Your task to perform on an android device: Search for panasonic triple a on bestbuy.com, select the first entry, add it to the cart, then select checkout. Image 0: 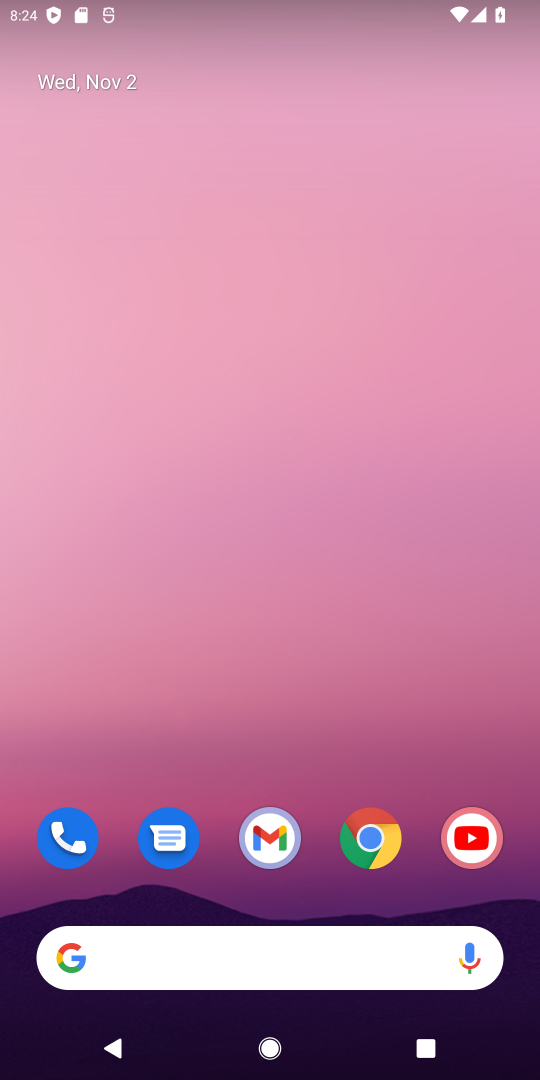
Step 0: click (384, 847)
Your task to perform on an android device: Search for panasonic triple a on bestbuy.com, select the first entry, add it to the cart, then select checkout. Image 1: 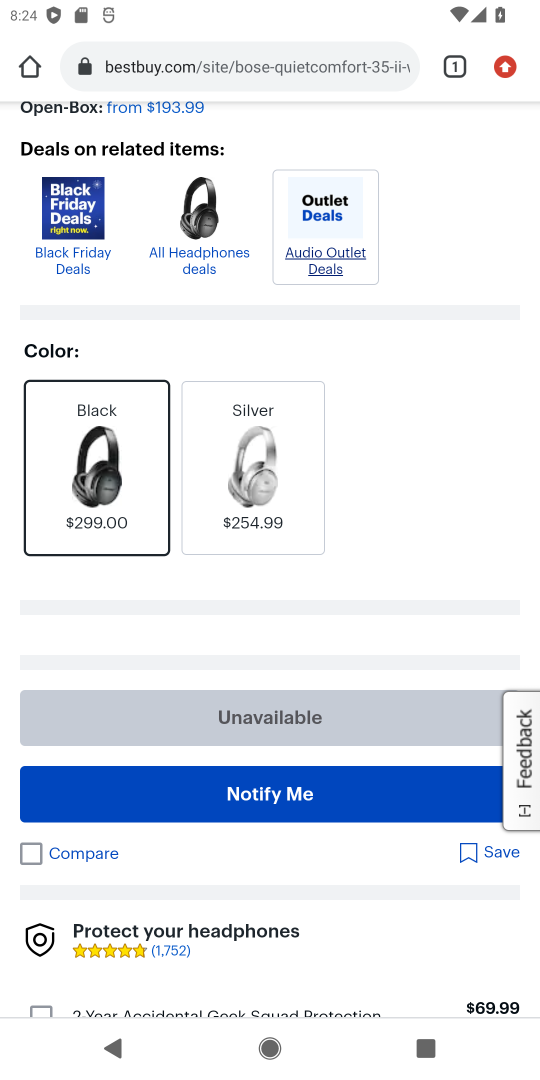
Step 1: click (261, 62)
Your task to perform on an android device: Search for panasonic triple a on bestbuy.com, select the first entry, add it to the cart, then select checkout. Image 2: 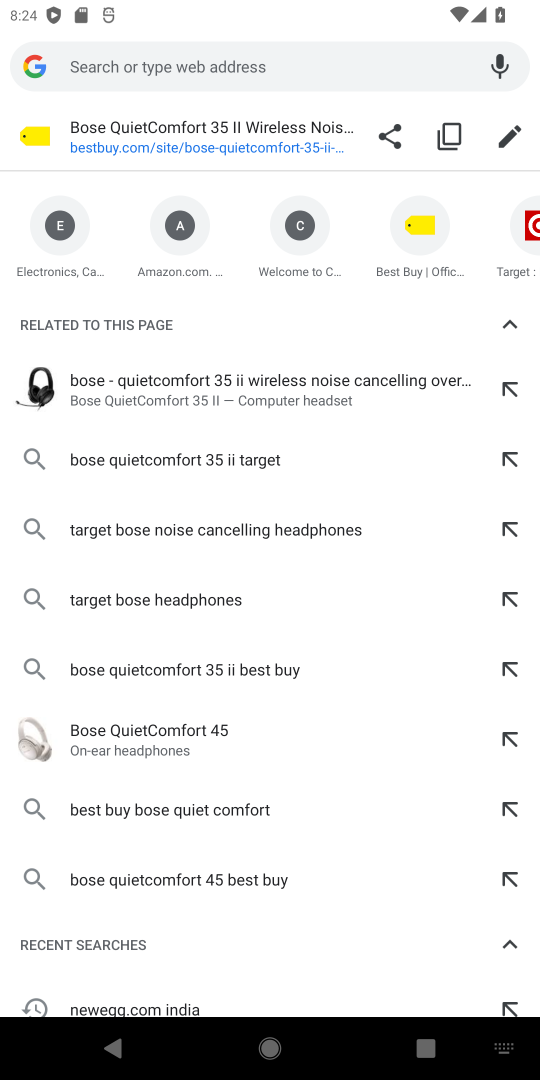
Step 2: type "bestbuy.com"
Your task to perform on an android device: Search for panasonic triple a on bestbuy.com, select the first entry, add it to the cart, then select checkout. Image 3: 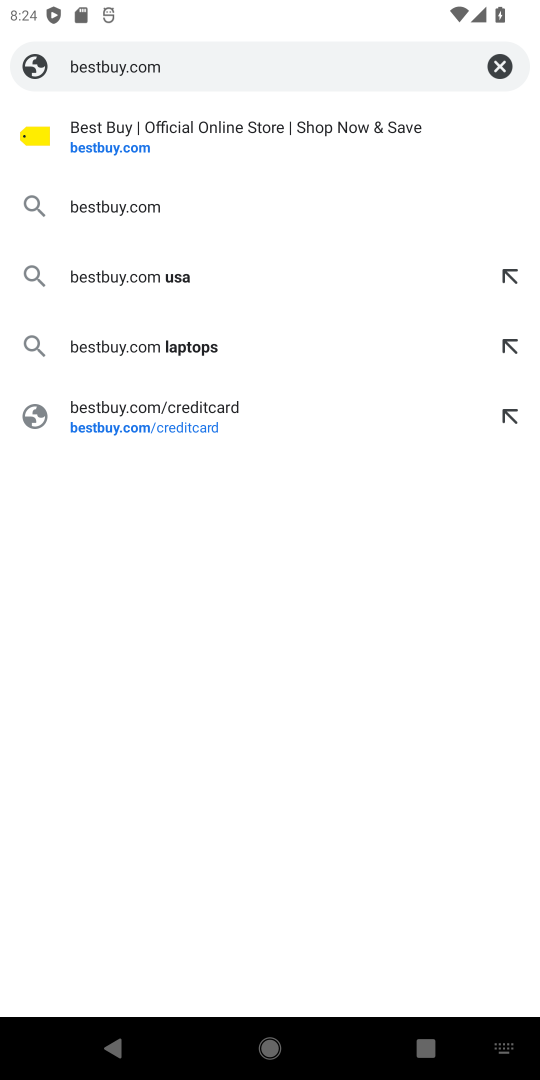
Step 3: press enter
Your task to perform on an android device: Search for panasonic triple a on bestbuy.com, select the first entry, add it to the cart, then select checkout. Image 4: 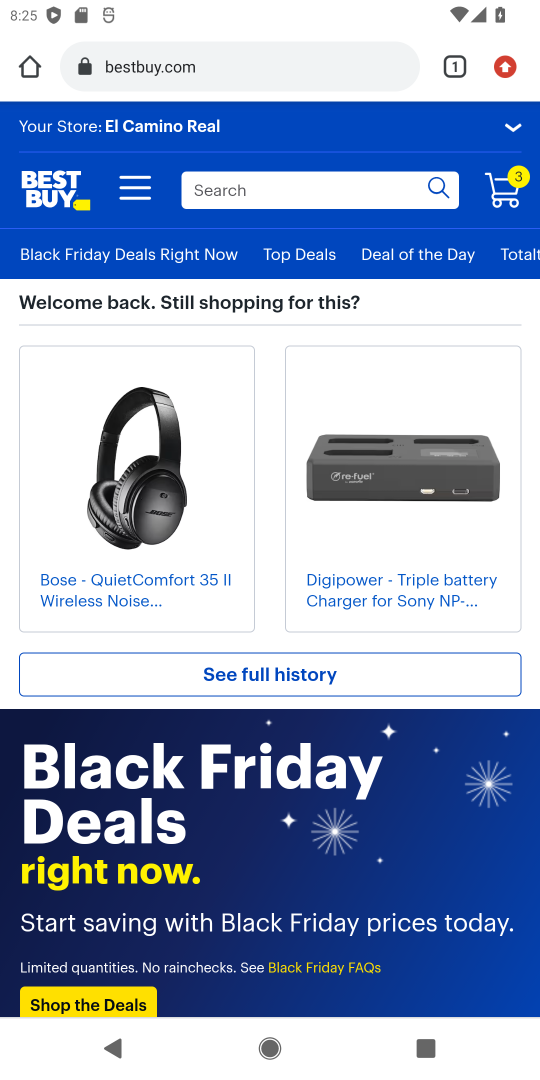
Step 4: click (303, 193)
Your task to perform on an android device: Search for panasonic triple a on bestbuy.com, select the first entry, add it to the cart, then select checkout. Image 5: 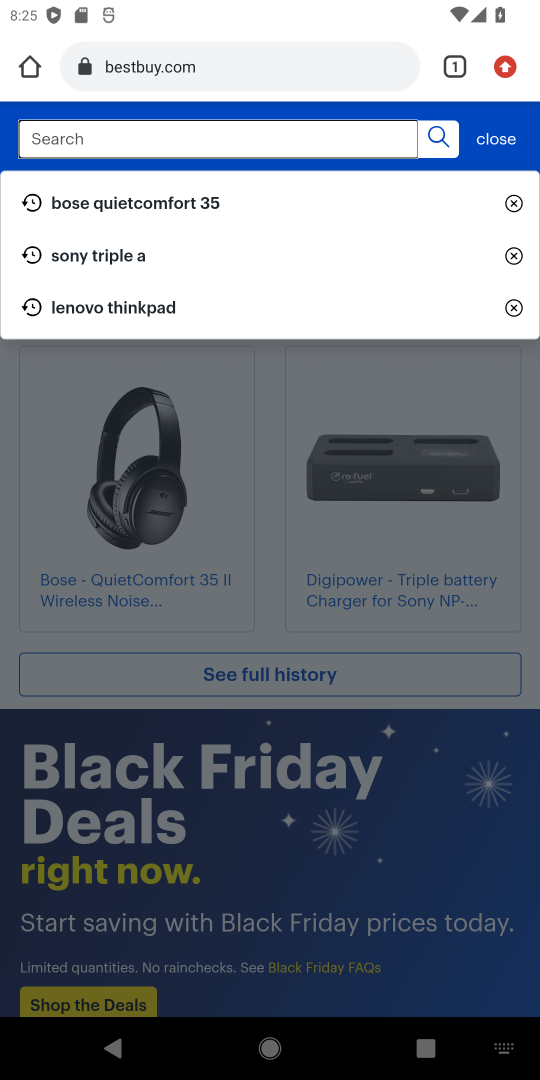
Step 5: type "panasonic triple a"
Your task to perform on an android device: Search for panasonic triple a on bestbuy.com, select the first entry, add it to the cart, then select checkout. Image 6: 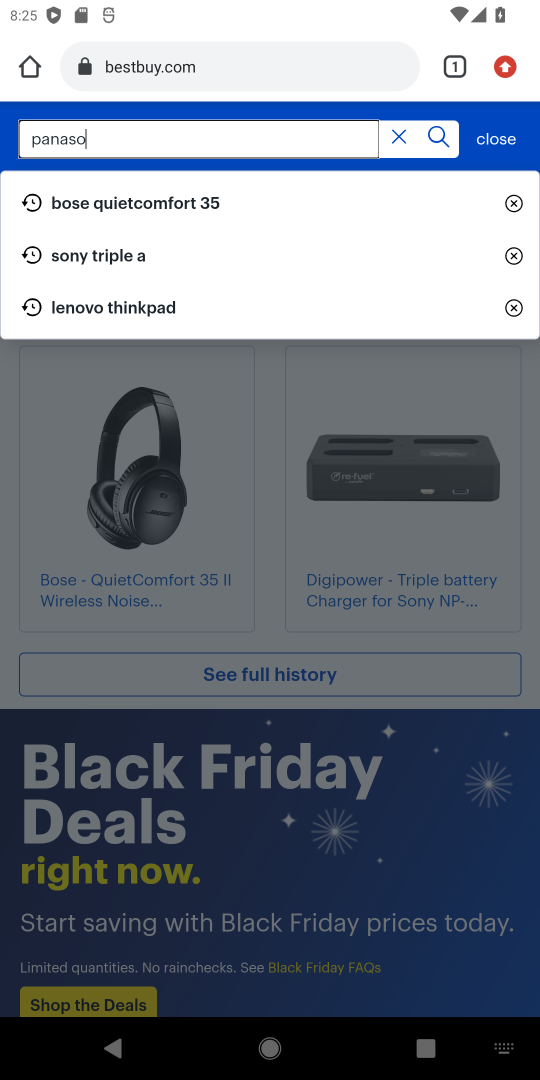
Step 6: type ""
Your task to perform on an android device: Search for panasonic triple a on bestbuy.com, select the first entry, add it to the cart, then select checkout. Image 7: 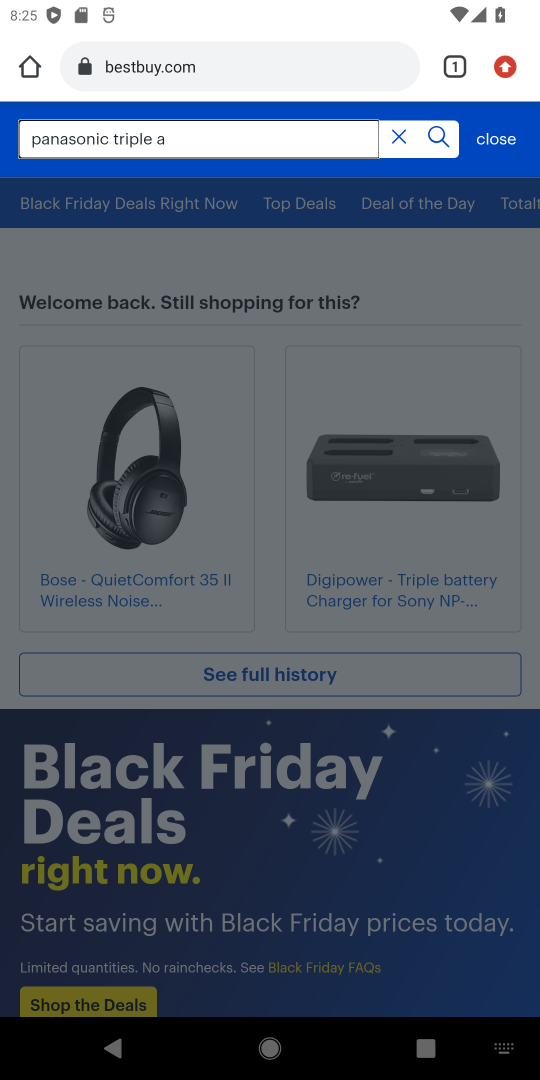
Step 7: press enter
Your task to perform on an android device: Search for panasonic triple a on bestbuy.com, select the first entry, add it to the cart, then select checkout. Image 8: 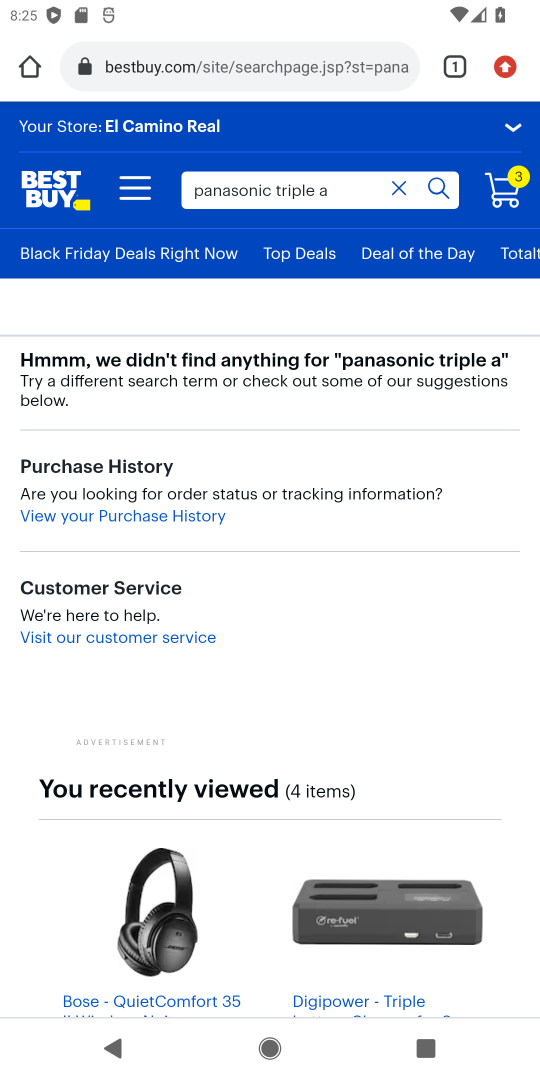
Step 8: task complete